Your task to perform on an android device: Open the map Image 0: 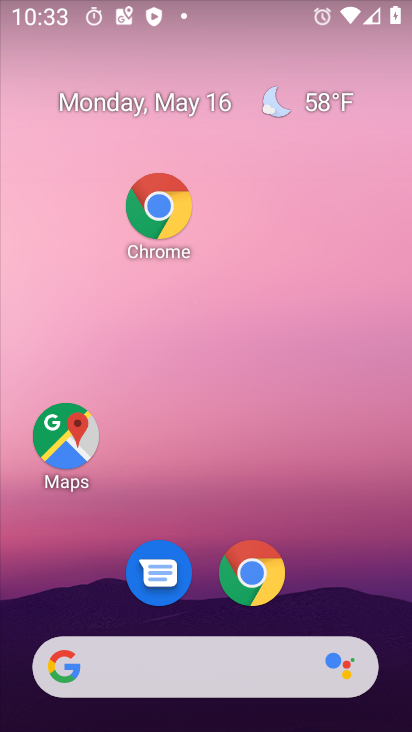
Step 0: click (117, 265)
Your task to perform on an android device: Open the map Image 1: 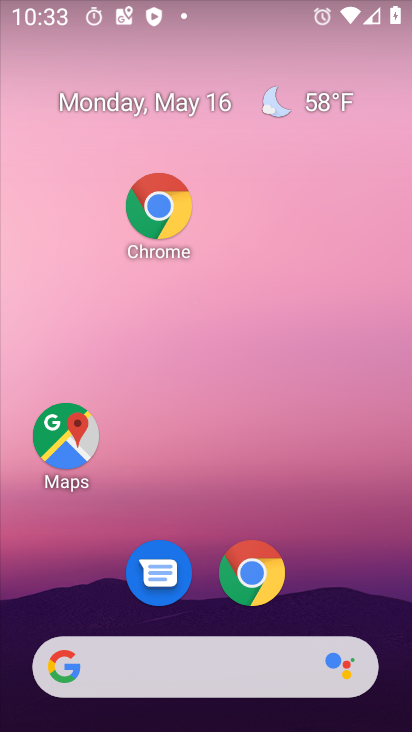
Step 1: click (230, 313)
Your task to perform on an android device: Open the map Image 2: 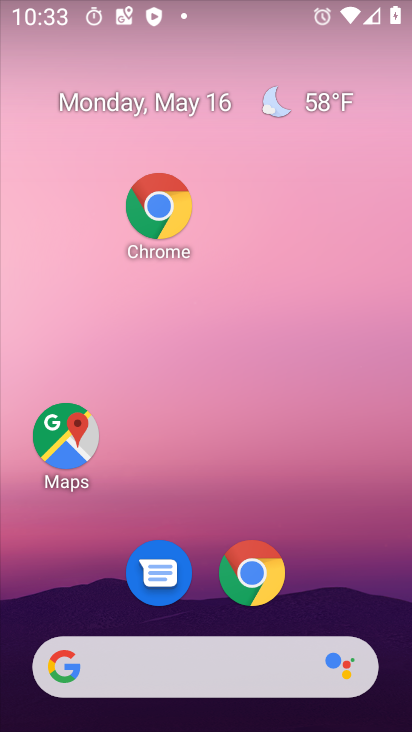
Step 2: drag from (229, 230) to (103, 4)
Your task to perform on an android device: Open the map Image 3: 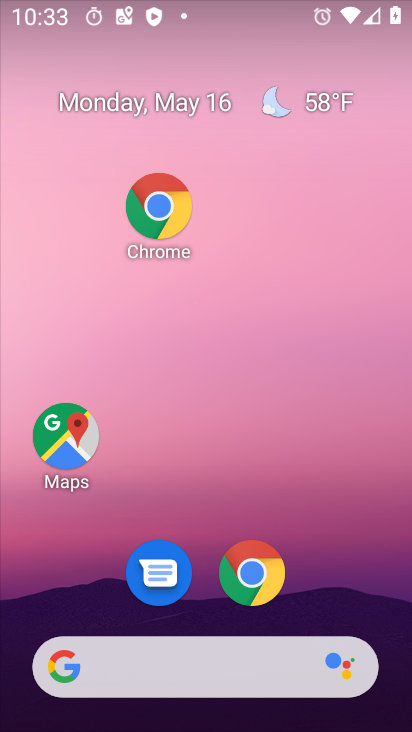
Step 3: drag from (204, 358) to (263, 78)
Your task to perform on an android device: Open the map Image 4: 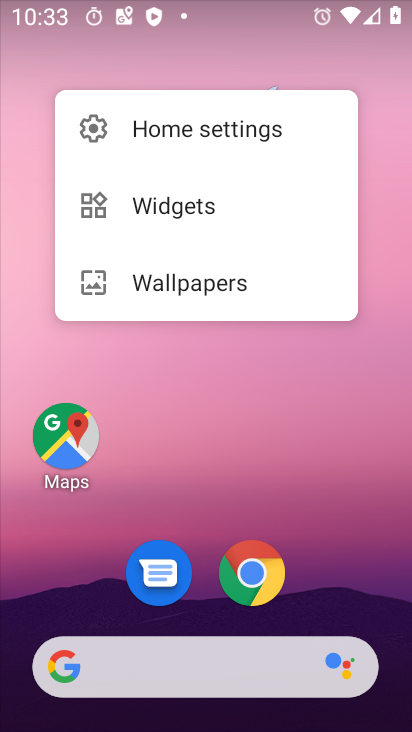
Step 4: drag from (300, 626) to (77, 86)
Your task to perform on an android device: Open the map Image 5: 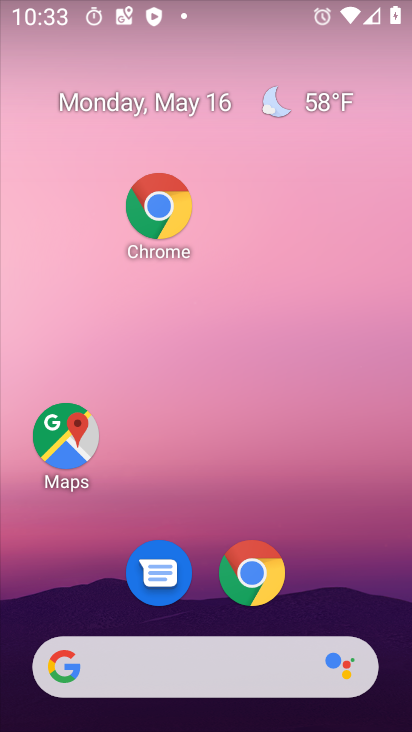
Step 5: drag from (243, 351) to (199, 115)
Your task to perform on an android device: Open the map Image 6: 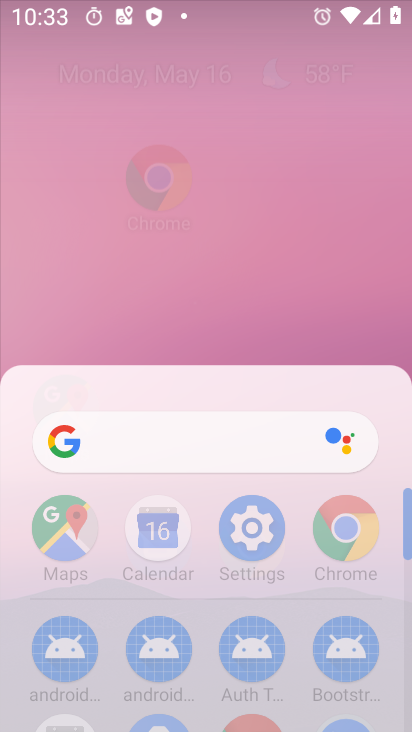
Step 6: drag from (241, 99) to (204, 2)
Your task to perform on an android device: Open the map Image 7: 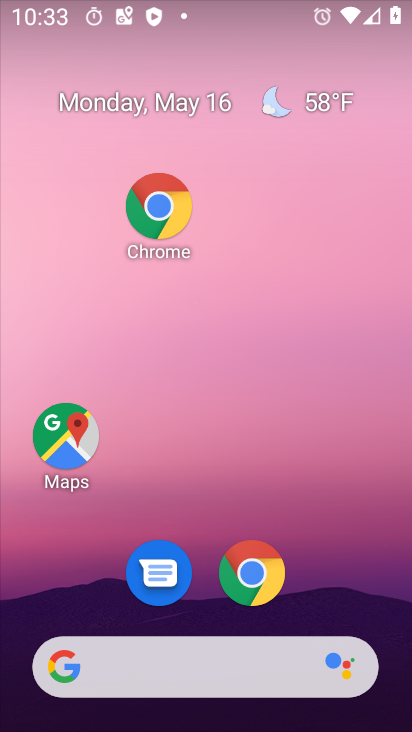
Step 7: drag from (151, 276) to (112, 68)
Your task to perform on an android device: Open the map Image 8: 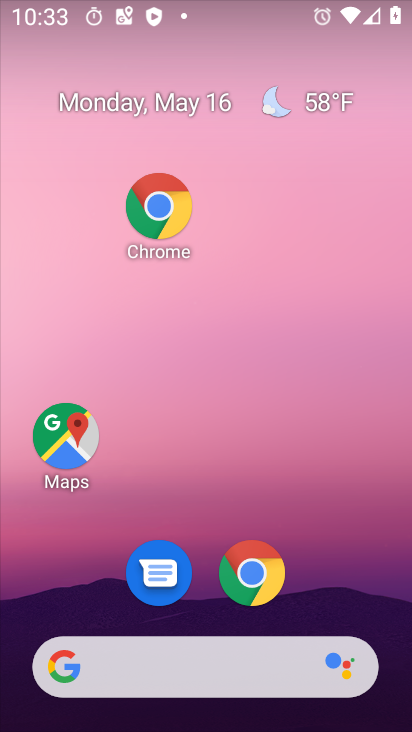
Step 8: drag from (201, 131) to (73, 6)
Your task to perform on an android device: Open the map Image 9: 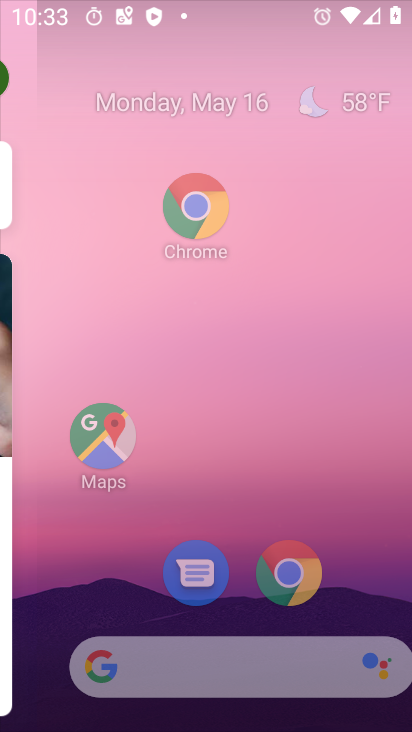
Step 9: click (136, 67)
Your task to perform on an android device: Open the map Image 10: 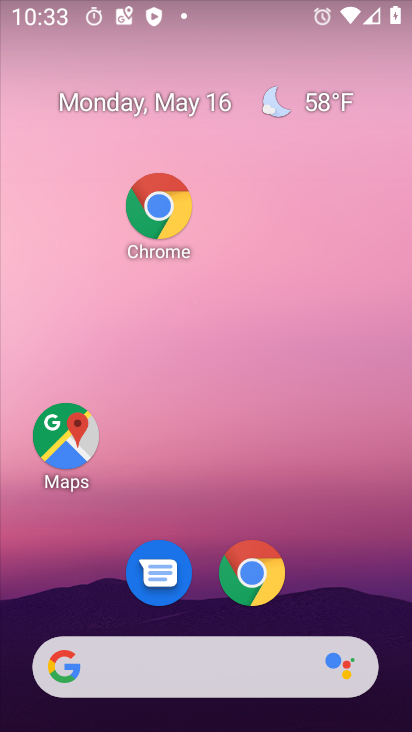
Step 10: drag from (114, 67) to (158, 72)
Your task to perform on an android device: Open the map Image 11: 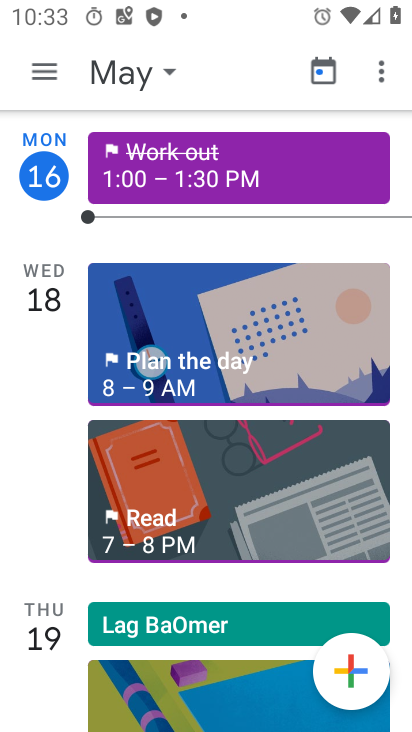
Step 11: drag from (210, 509) to (109, 9)
Your task to perform on an android device: Open the map Image 12: 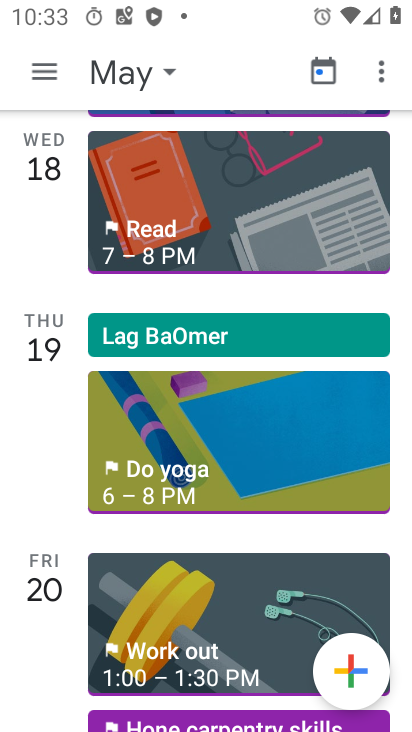
Step 12: press back button
Your task to perform on an android device: Open the map Image 13: 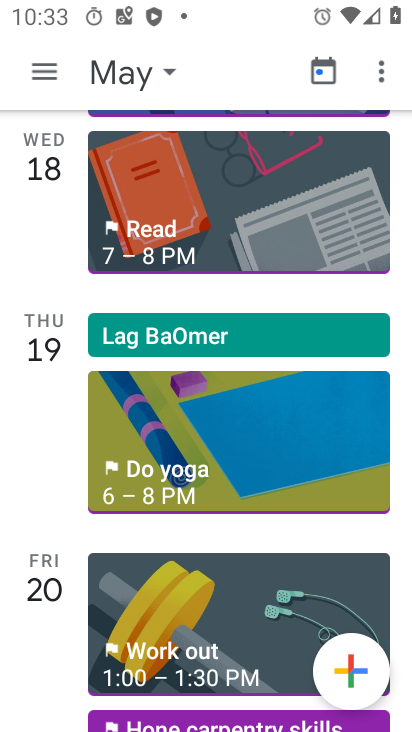
Step 13: press back button
Your task to perform on an android device: Open the map Image 14: 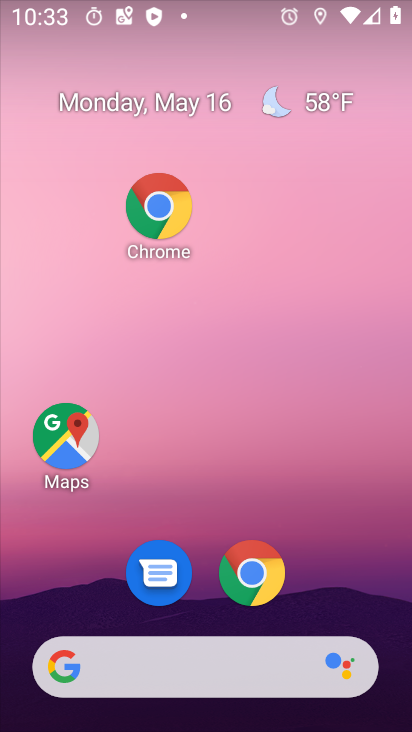
Step 14: drag from (307, 531) to (89, 63)
Your task to perform on an android device: Open the map Image 15: 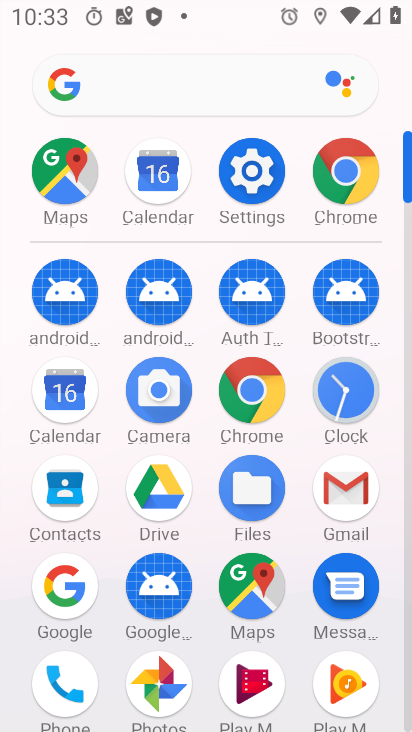
Step 15: click (246, 595)
Your task to perform on an android device: Open the map Image 16: 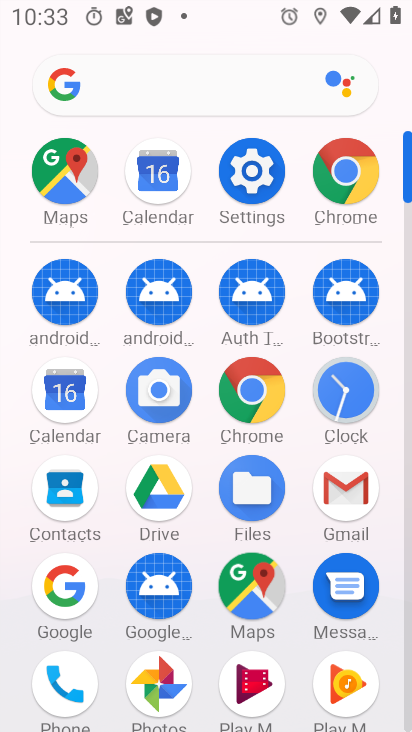
Step 16: click (246, 595)
Your task to perform on an android device: Open the map Image 17: 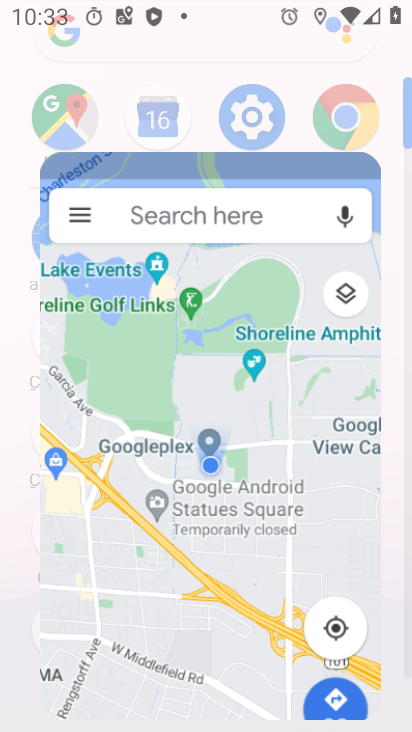
Step 17: click (246, 595)
Your task to perform on an android device: Open the map Image 18: 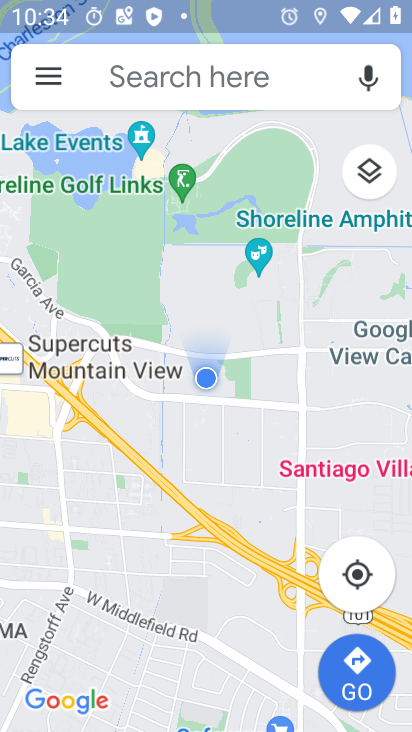
Step 18: task complete